Your task to perform on an android device: Open ESPN.com Image 0: 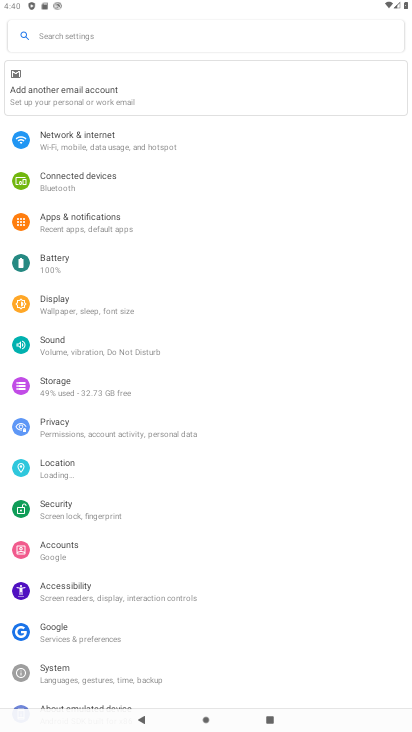
Step 0: press home button
Your task to perform on an android device: Open ESPN.com Image 1: 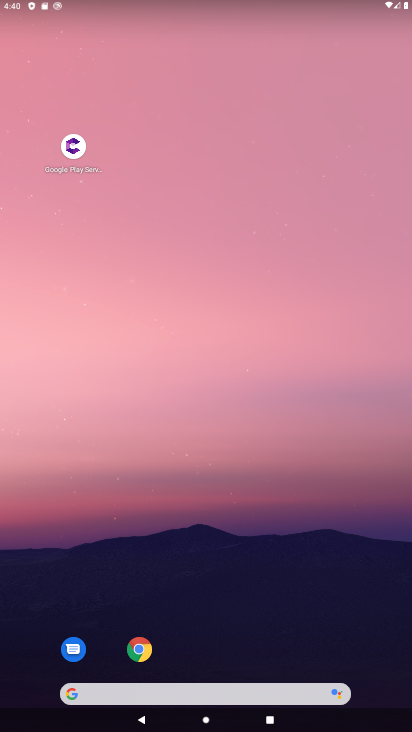
Step 1: drag from (273, 618) to (261, 36)
Your task to perform on an android device: Open ESPN.com Image 2: 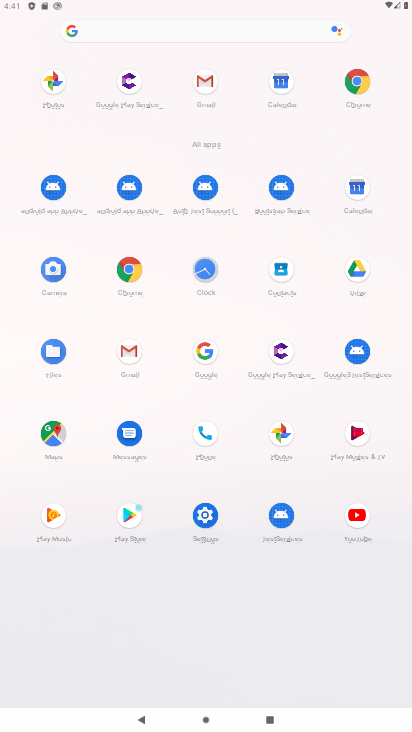
Step 2: click (127, 269)
Your task to perform on an android device: Open ESPN.com Image 3: 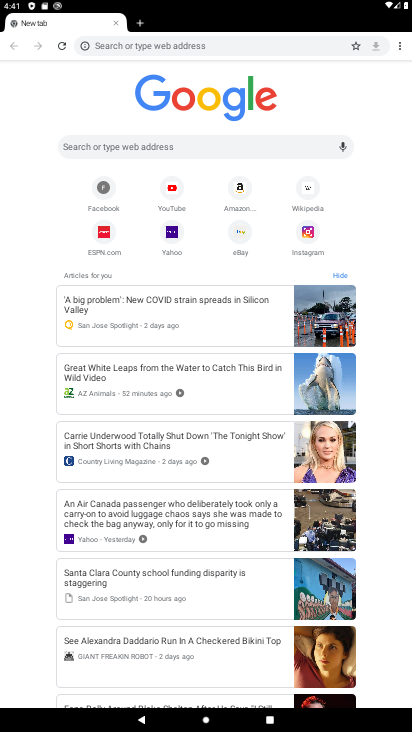
Step 3: click (103, 226)
Your task to perform on an android device: Open ESPN.com Image 4: 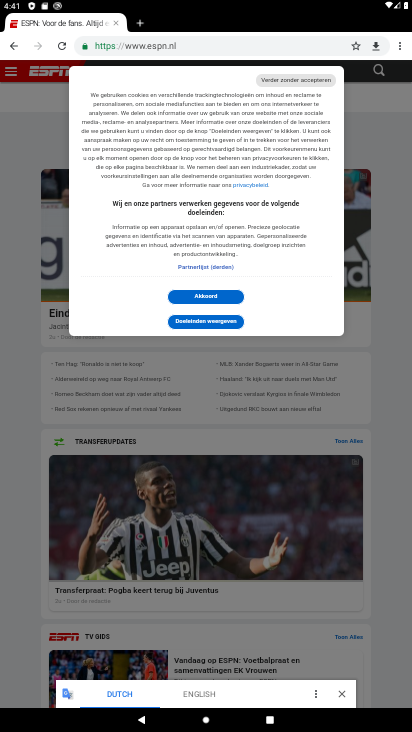
Step 4: task complete